Your task to perform on an android device: turn notification dots on Image 0: 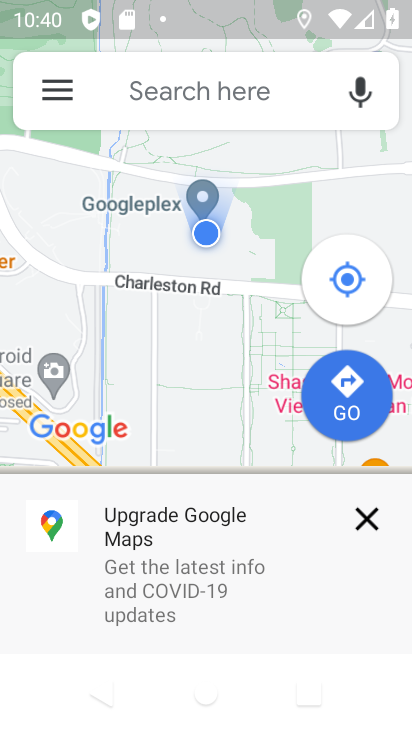
Step 0: press home button
Your task to perform on an android device: turn notification dots on Image 1: 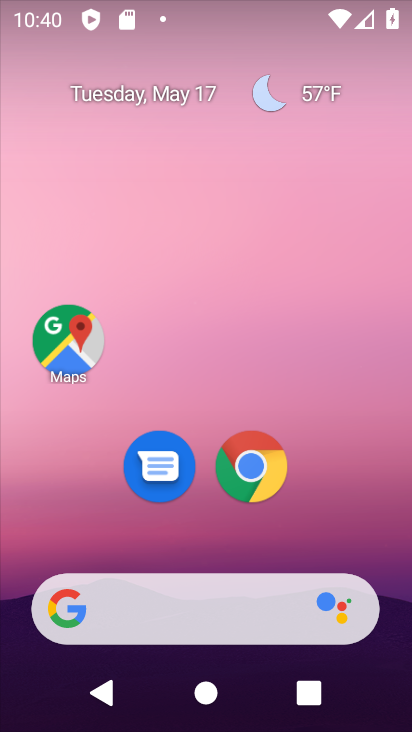
Step 1: drag from (202, 589) to (216, 197)
Your task to perform on an android device: turn notification dots on Image 2: 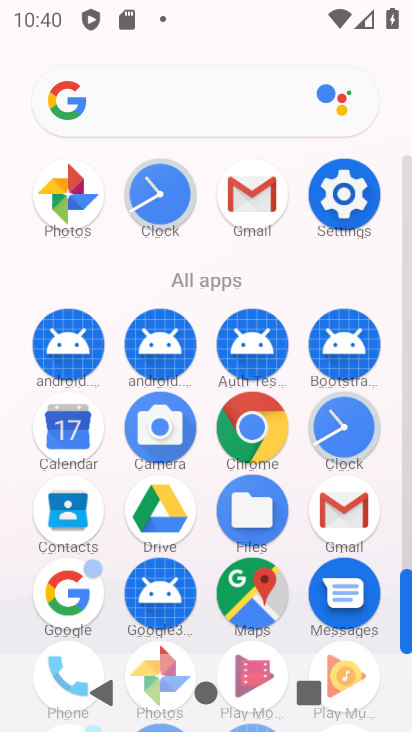
Step 2: drag from (224, 554) to (214, 181)
Your task to perform on an android device: turn notification dots on Image 3: 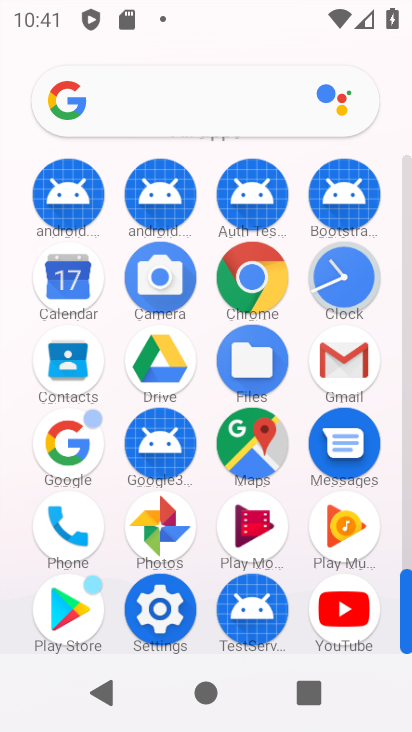
Step 3: click (155, 614)
Your task to perform on an android device: turn notification dots on Image 4: 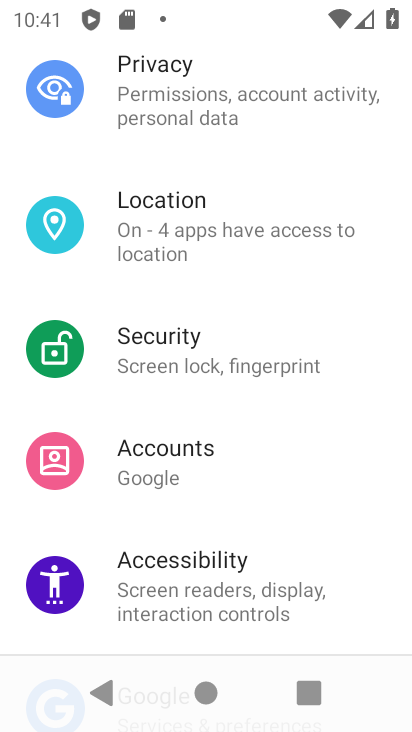
Step 4: click (186, 220)
Your task to perform on an android device: turn notification dots on Image 5: 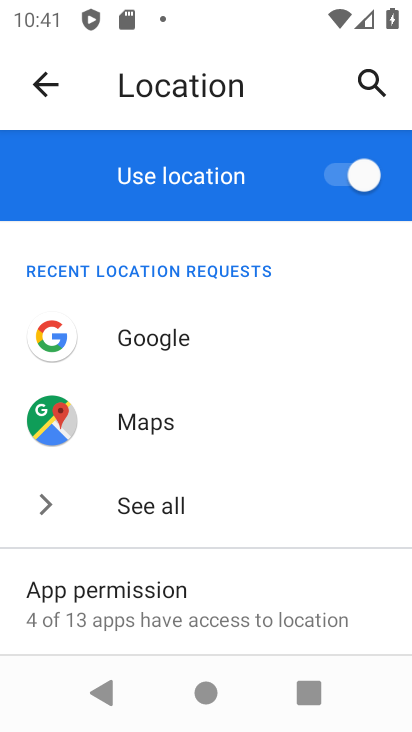
Step 5: drag from (151, 603) to (153, 226)
Your task to perform on an android device: turn notification dots on Image 6: 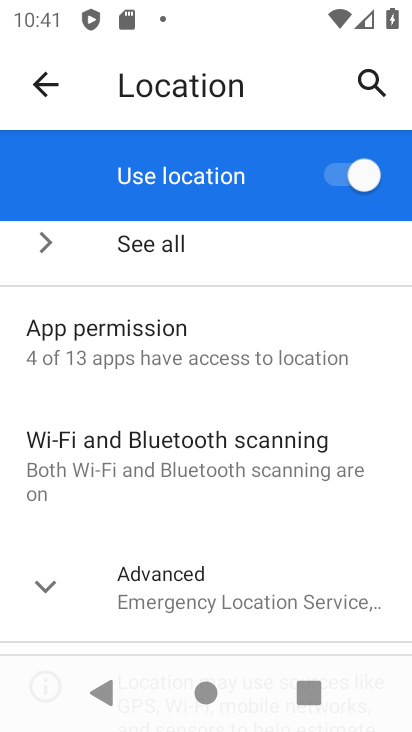
Step 6: click (159, 472)
Your task to perform on an android device: turn notification dots on Image 7: 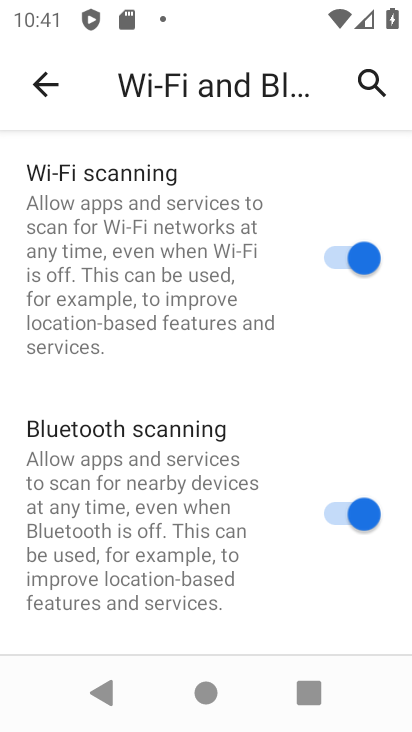
Step 7: task complete